Your task to perform on an android device: Open Youtube and go to "Your channel" Image 0: 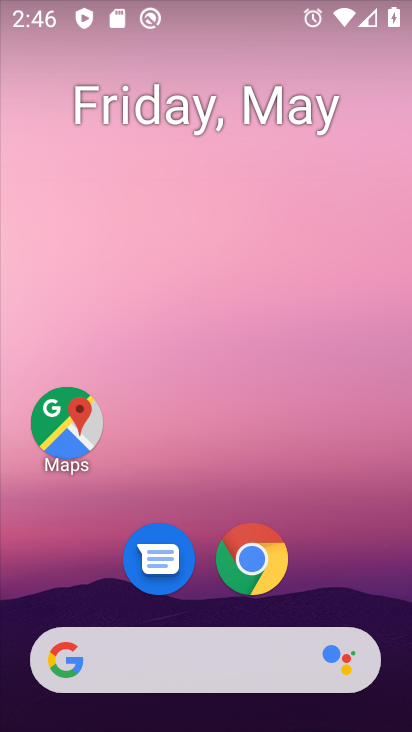
Step 0: drag from (379, 585) to (322, 8)
Your task to perform on an android device: Open Youtube and go to "Your channel" Image 1: 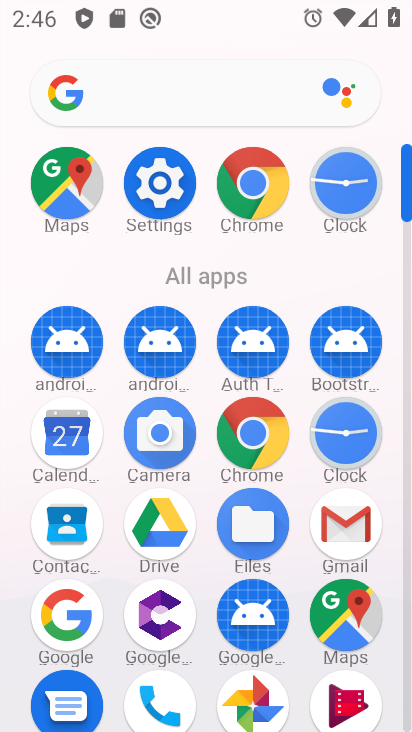
Step 1: click (407, 702)
Your task to perform on an android device: Open Youtube and go to "Your channel" Image 2: 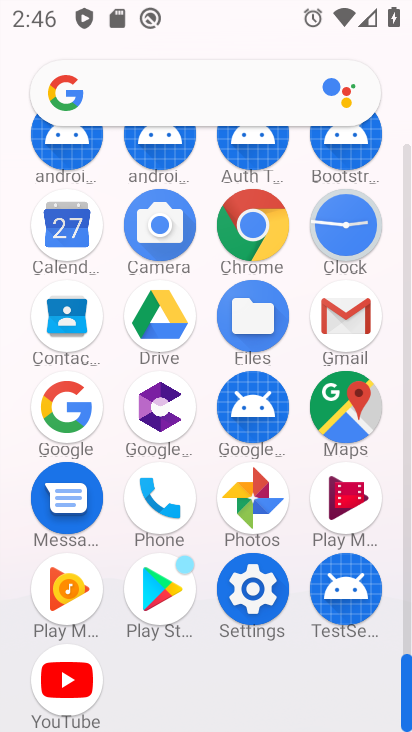
Step 2: click (90, 699)
Your task to perform on an android device: Open Youtube and go to "Your channel" Image 3: 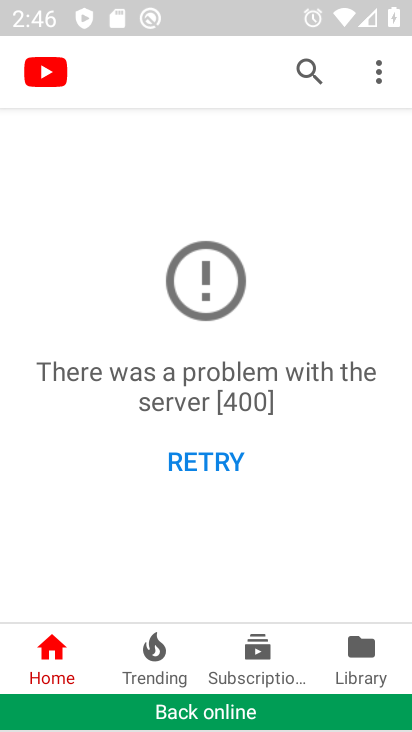
Step 3: task complete